Your task to perform on an android device: create a new album in the google photos Image 0: 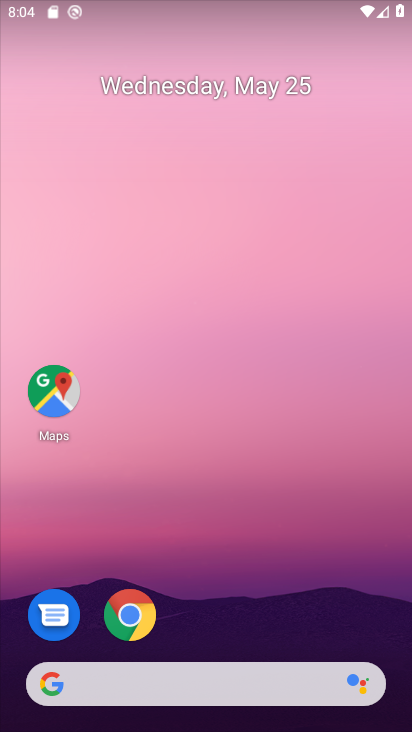
Step 0: drag from (224, 586) to (200, 0)
Your task to perform on an android device: create a new album in the google photos Image 1: 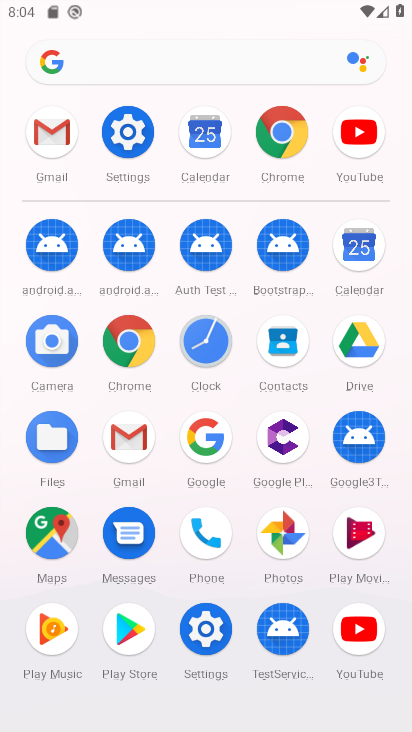
Step 1: drag from (16, 576) to (5, 233)
Your task to perform on an android device: create a new album in the google photos Image 2: 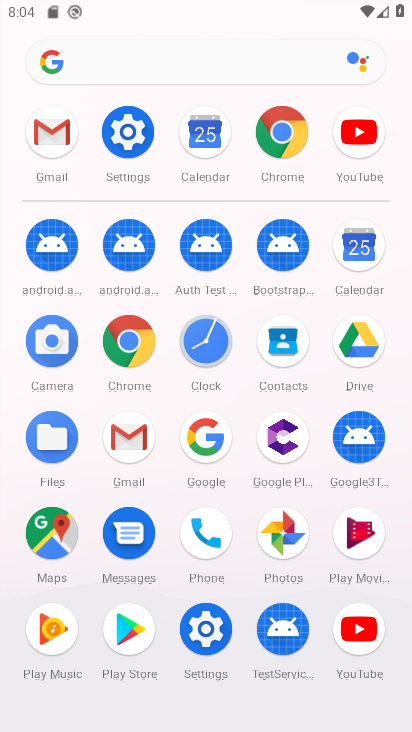
Step 2: click (288, 525)
Your task to perform on an android device: create a new album in the google photos Image 3: 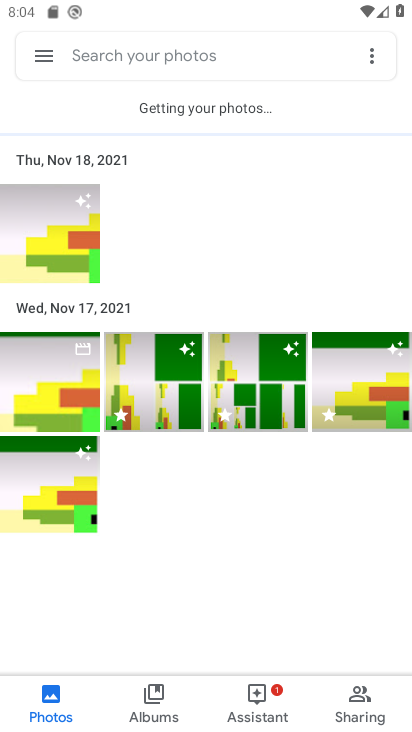
Step 3: click (44, 226)
Your task to perform on an android device: create a new album in the google photos Image 4: 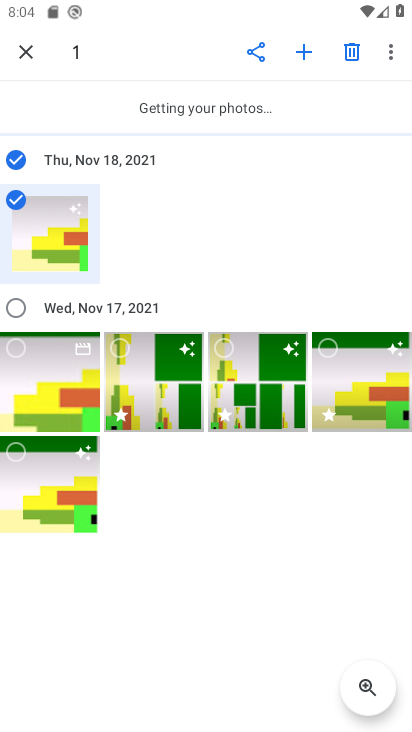
Step 4: click (307, 43)
Your task to perform on an android device: create a new album in the google photos Image 5: 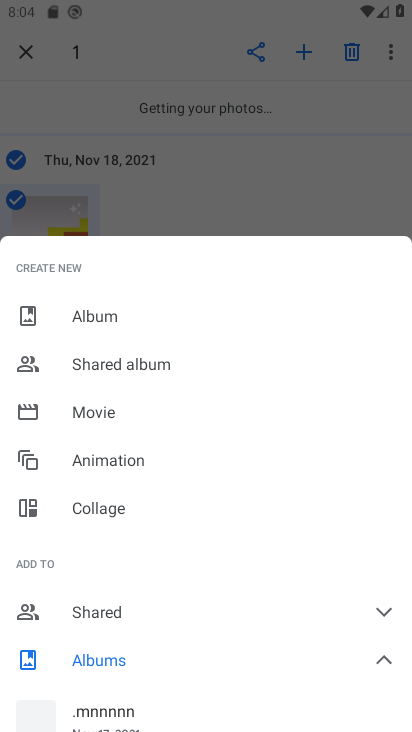
Step 5: click (124, 302)
Your task to perform on an android device: create a new album in the google photos Image 6: 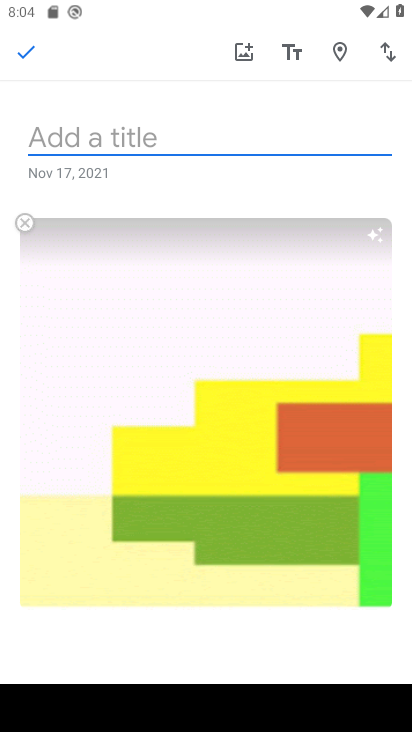
Step 6: type "Zxcvbn"
Your task to perform on an android device: create a new album in the google photos Image 7: 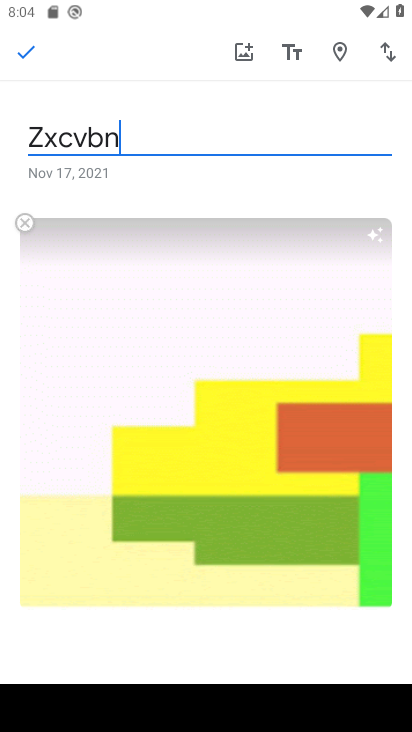
Step 7: type ""
Your task to perform on an android device: create a new album in the google photos Image 8: 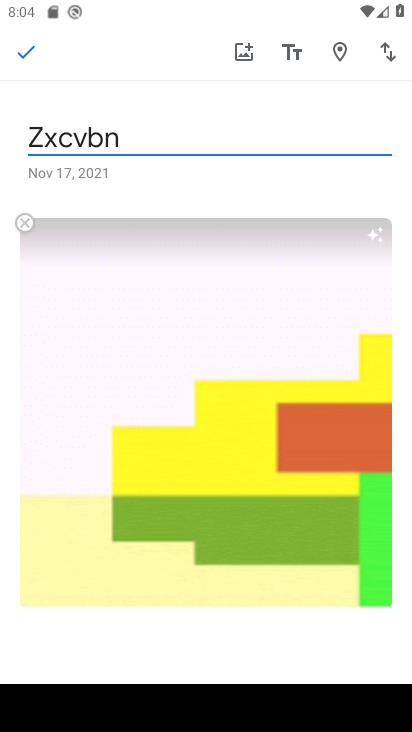
Step 8: click (37, 57)
Your task to perform on an android device: create a new album in the google photos Image 9: 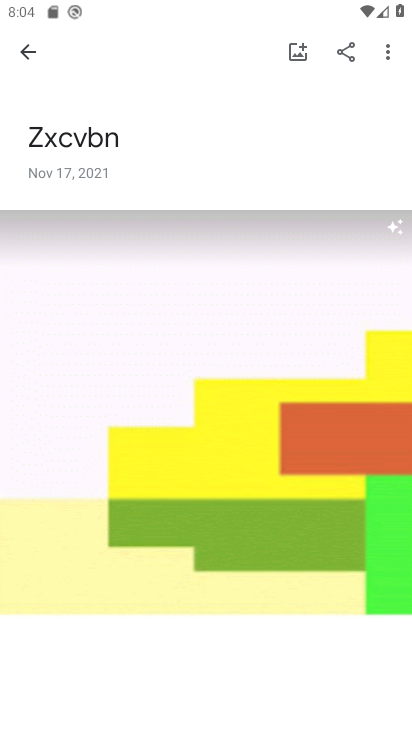
Step 9: task complete